Your task to perform on an android device: Open the map Image 0: 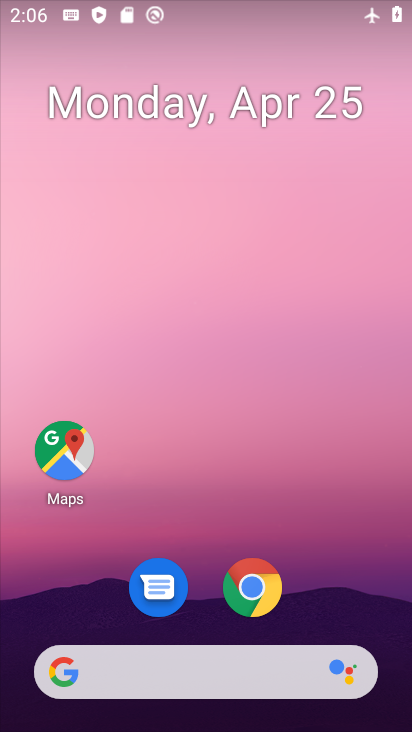
Step 0: drag from (326, 577) to (292, 105)
Your task to perform on an android device: Open the map Image 1: 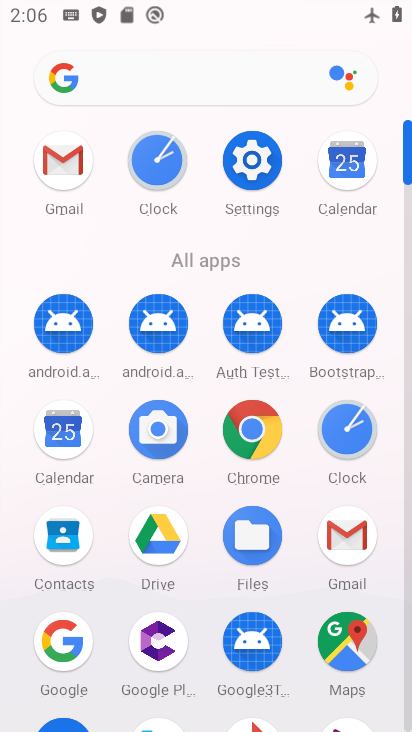
Step 1: click (361, 674)
Your task to perform on an android device: Open the map Image 2: 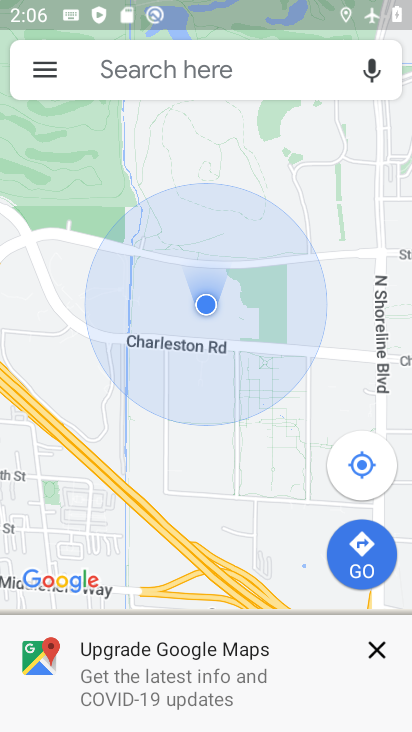
Step 2: task complete